Your task to perform on an android device: open wifi settings Image 0: 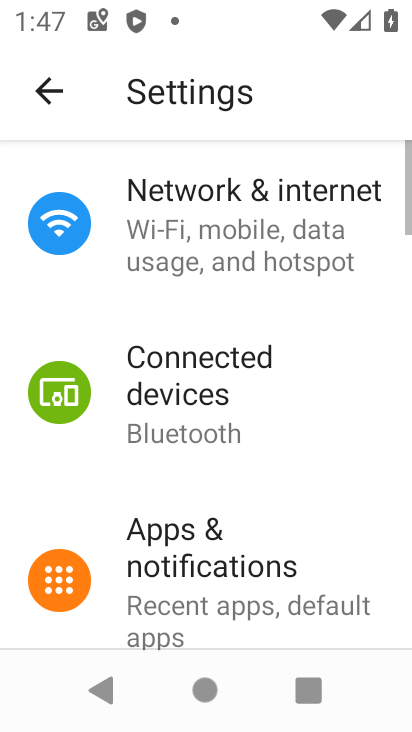
Step 0: click (271, 244)
Your task to perform on an android device: open wifi settings Image 1: 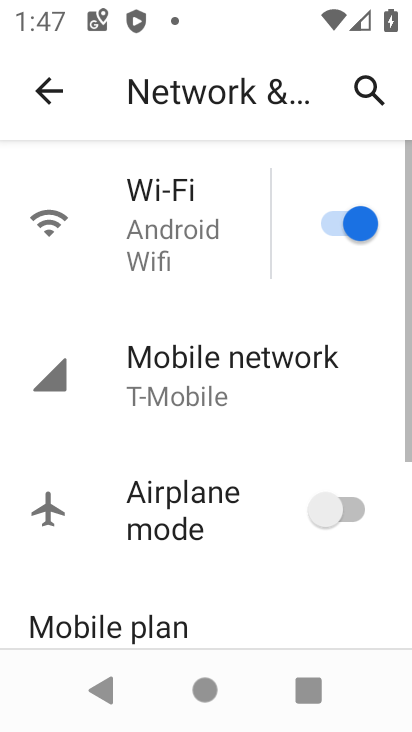
Step 1: click (193, 224)
Your task to perform on an android device: open wifi settings Image 2: 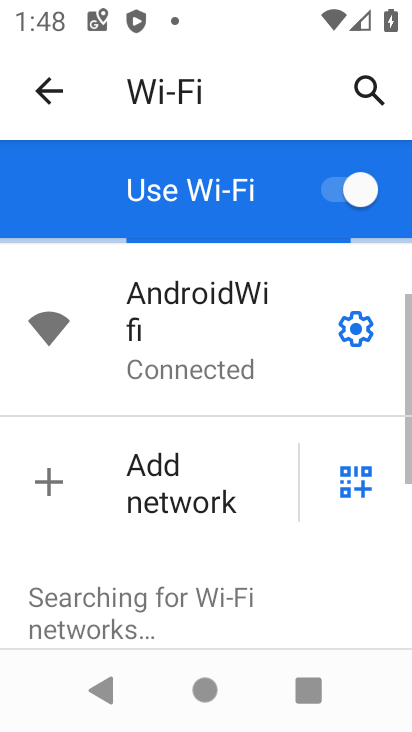
Step 2: task complete